Your task to perform on an android device: Open Amazon Image 0: 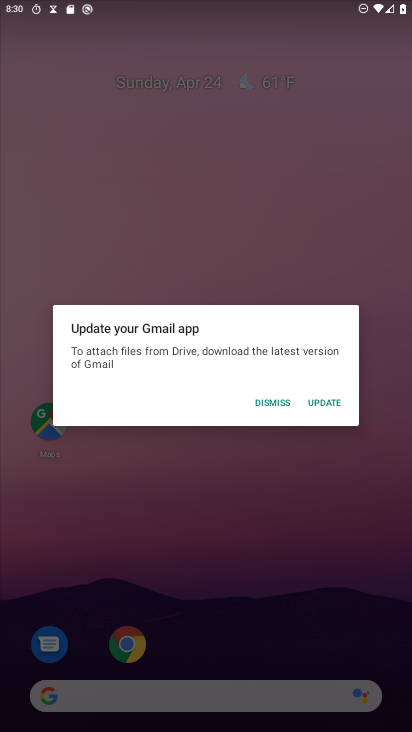
Step 0: click (272, 403)
Your task to perform on an android device: Open Amazon Image 1: 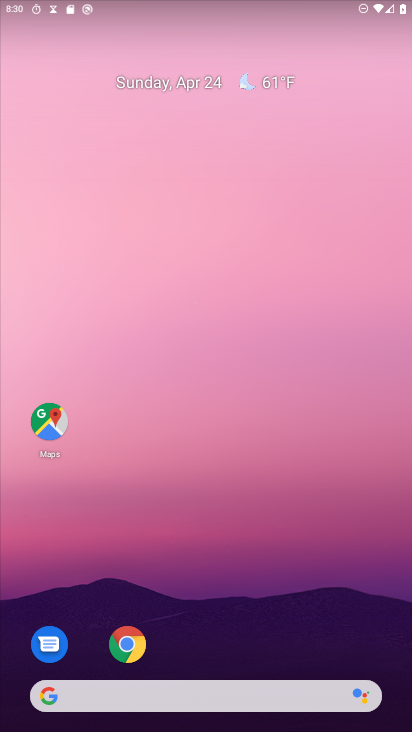
Step 1: click (134, 649)
Your task to perform on an android device: Open Amazon Image 2: 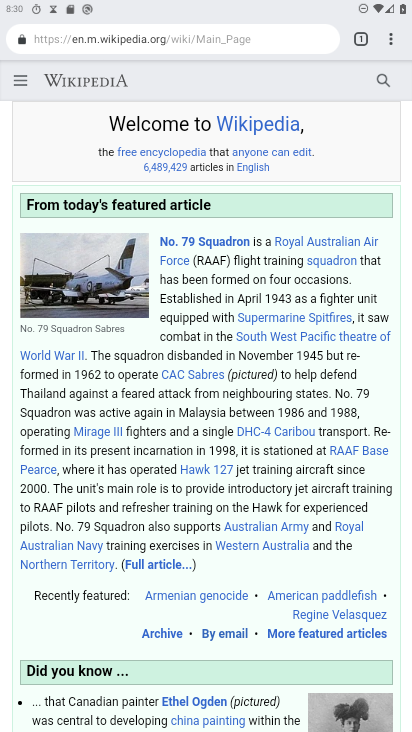
Step 2: click (163, 39)
Your task to perform on an android device: Open Amazon Image 3: 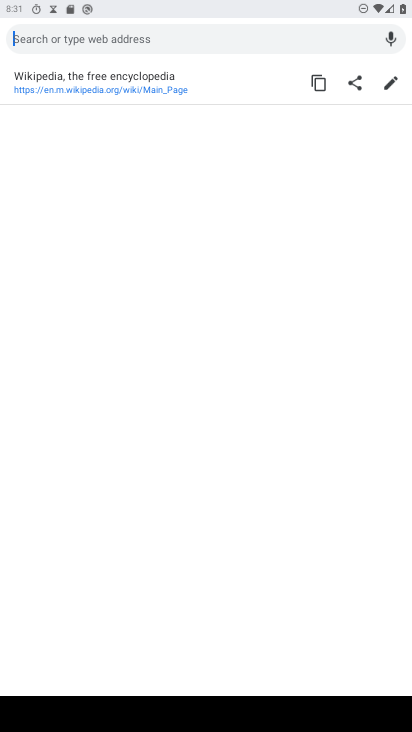
Step 3: type "amazon"
Your task to perform on an android device: Open Amazon Image 4: 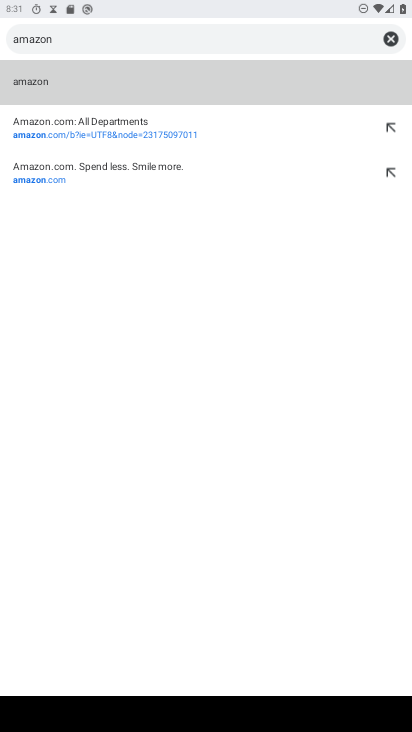
Step 4: click (102, 179)
Your task to perform on an android device: Open Amazon Image 5: 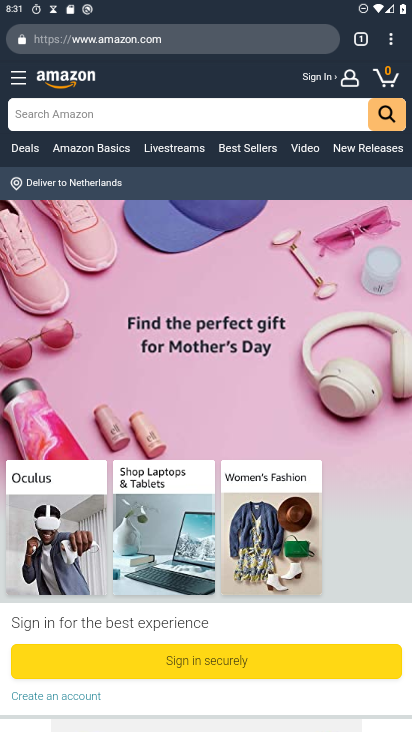
Step 5: task complete